Your task to perform on an android device: Open Yahoo.com Image 0: 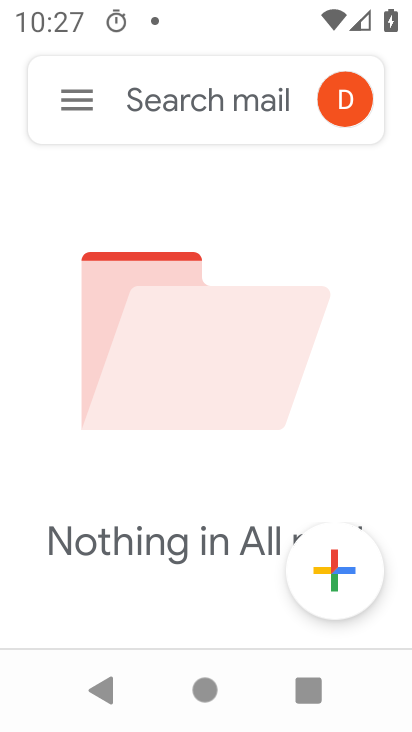
Step 0: press back button
Your task to perform on an android device: Open Yahoo.com Image 1: 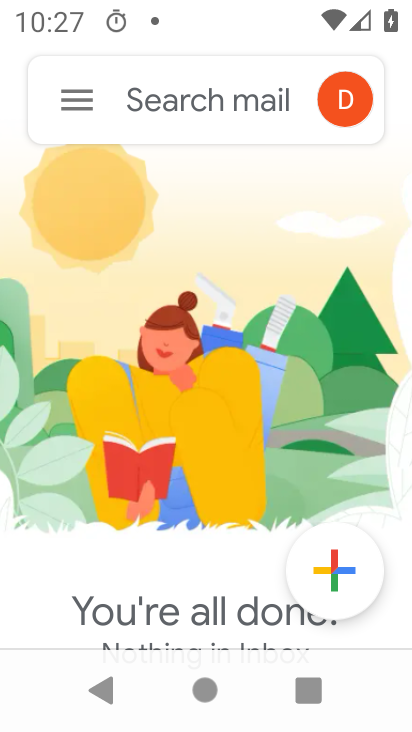
Step 1: press home button
Your task to perform on an android device: Open Yahoo.com Image 2: 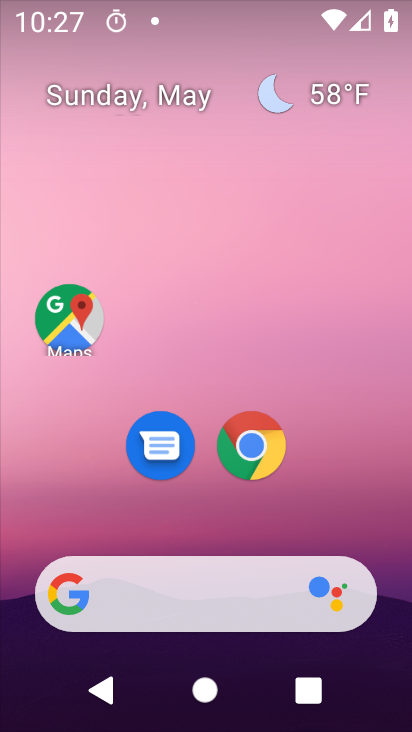
Step 2: drag from (326, 512) to (227, 52)
Your task to perform on an android device: Open Yahoo.com Image 3: 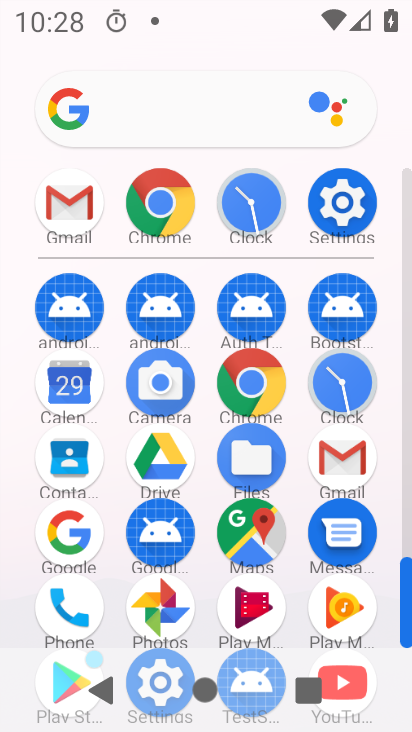
Step 3: click (153, 200)
Your task to perform on an android device: Open Yahoo.com Image 4: 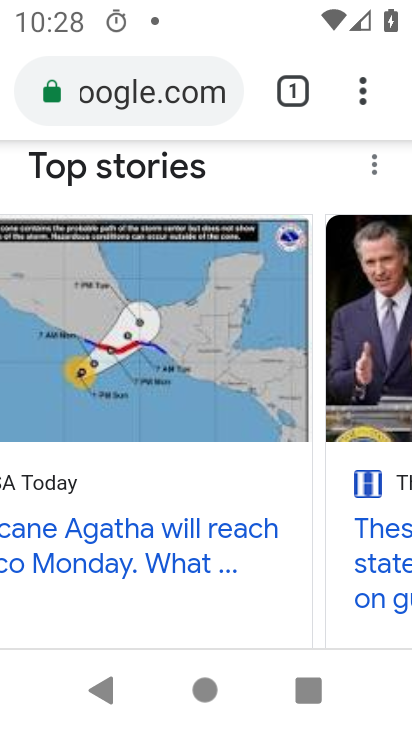
Step 4: click (146, 87)
Your task to perform on an android device: Open Yahoo.com Image 5: 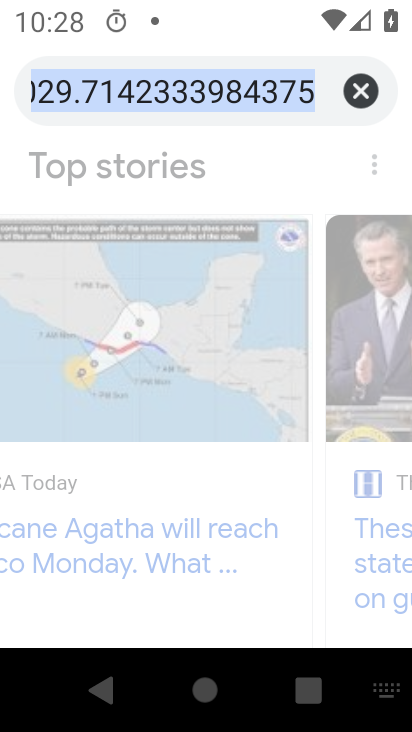
Step 5: click (341, 87)
Your task to perform on an android device: Open Yahoo.com Image 6: 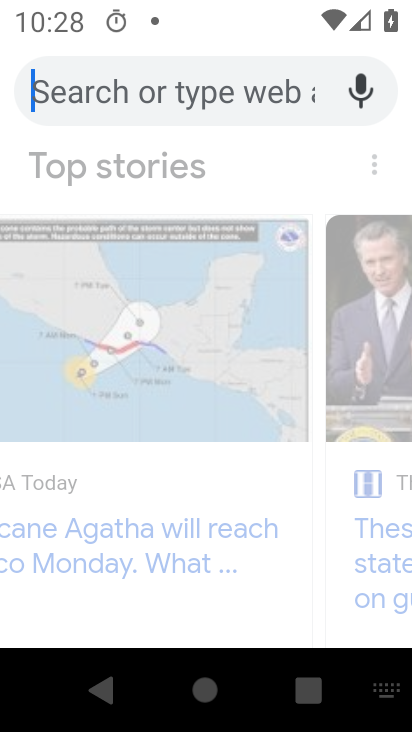
Step 6: type "Yahoo.com"
Your task to perform on an android device: Open Yahoo.com Image 7: 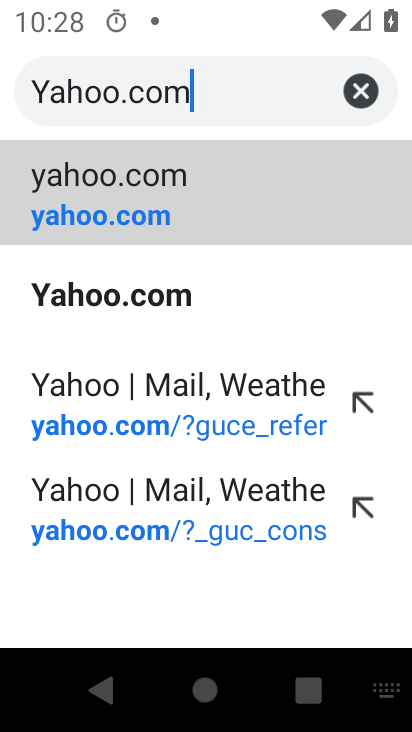
Step 7: type ""
Your task to perform on an android device: Open Yahoo.com Image 8: 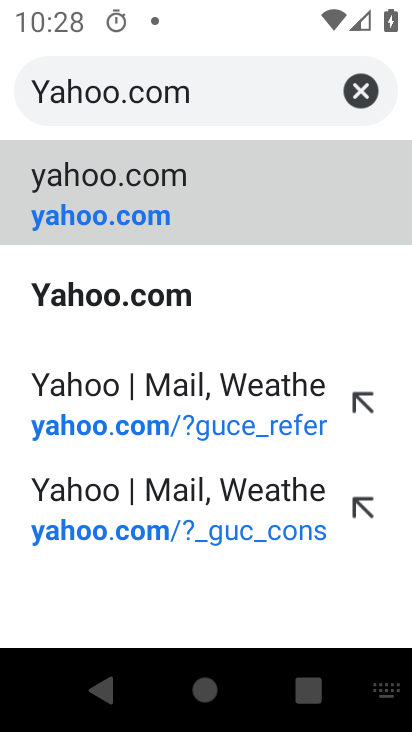
Step 8: click (185, 195)
Your task to perform on an android device: Open Yahoo.com Image 9: 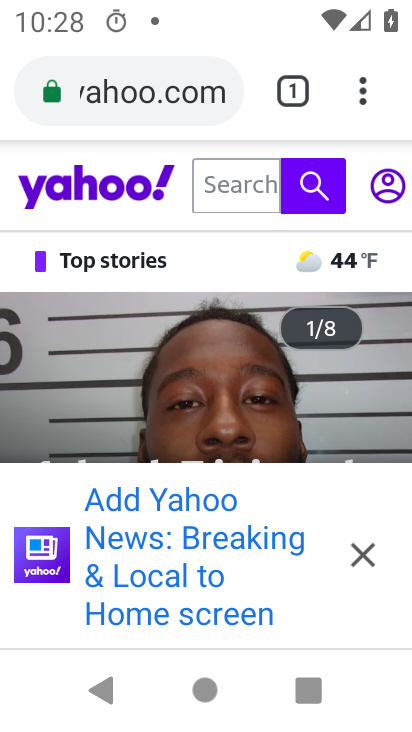
Step 9: task complete